Your task to perform on an android device: choose inbox layout in the gmail app Image 0: 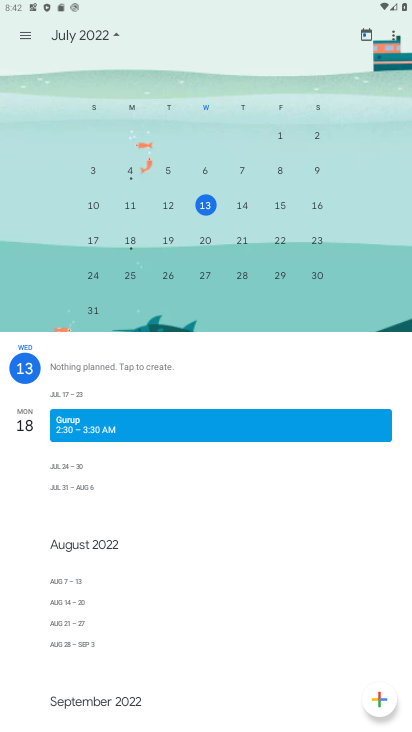
Step 0: press home button
Your task to perform on an android device: choose inbox layout in the gmail app Image 1: 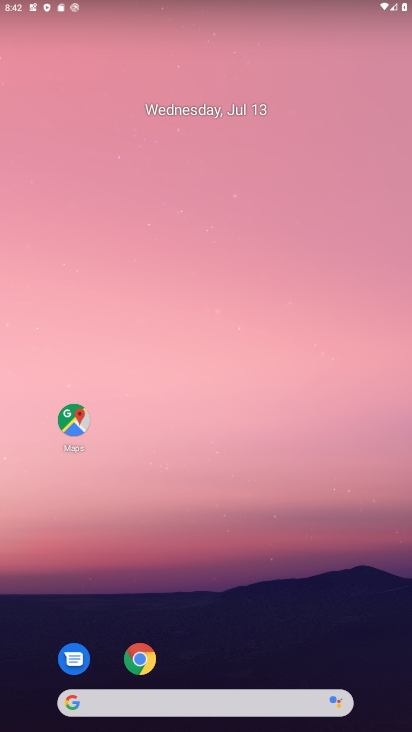
Step 1: drag from (221, 638) to (272, 215)
Your task to perform on an android device: choose inbox layout in the gmail app Image 2: 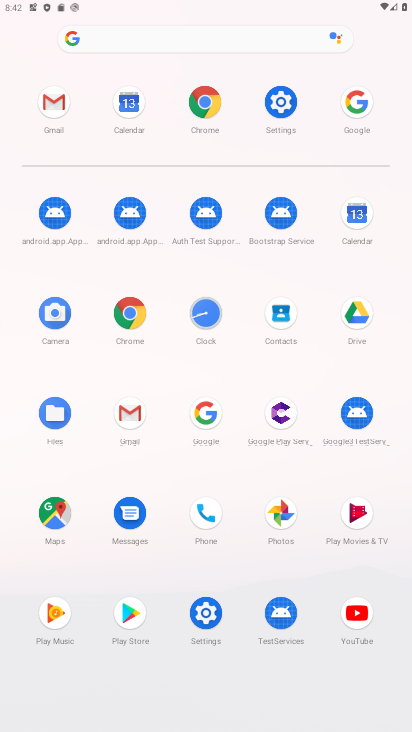
Step 2: click (131, 435)
Your task to perform on an android device: choose inbox layout in the gmail app Image 3: 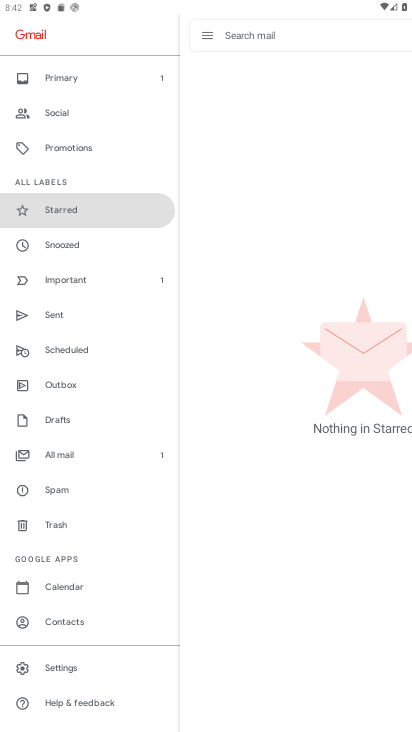
Step 3: click (82, 655)
Your task to perform on an android device: choose inbox layout in the gmail app Image 4: 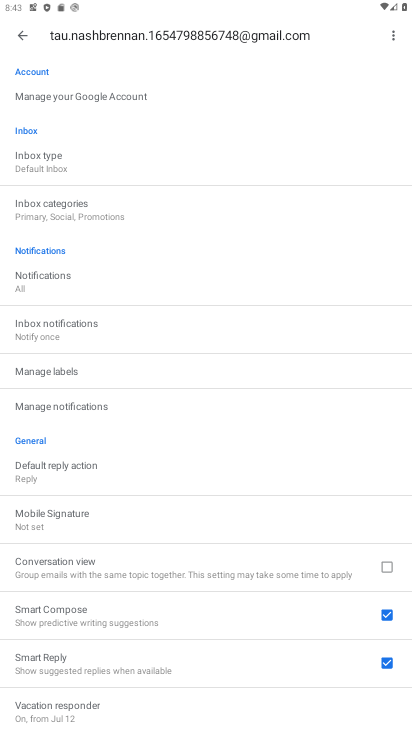
Step 4: click (96, 168)
Your task to perform on an android device: choose inbox layout in the gmail app Image 5: 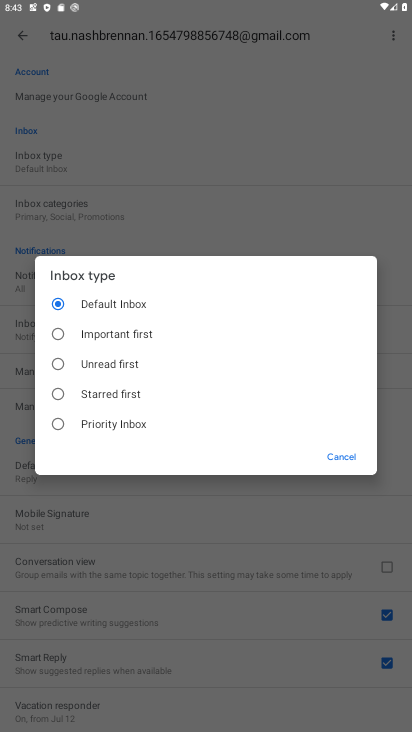
Step 5: click (109, 417)
Your task to perform on an android device: choose inbox layout in the gmail app Image 6: 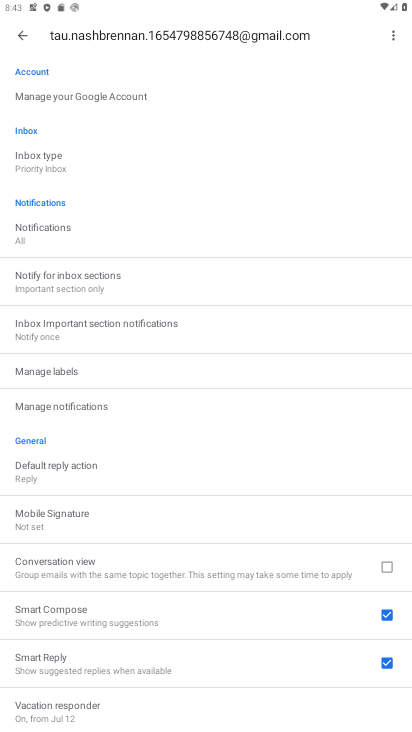
Step 6: task complete